Your task to perform on an android device: Open the stopwatch Image 0: 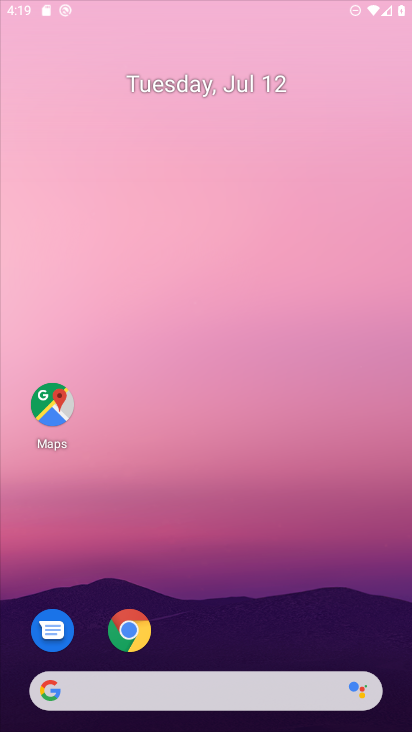
Step 0: click (294, 162)
Your task to perform on an android device: Open the stopwatch Image 1: 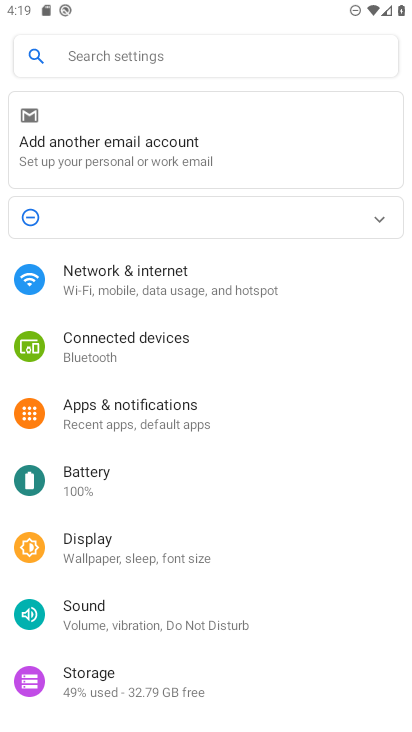
Step 1: press home button
Your task to perform on an android device: Open the stopwatch Image 2: 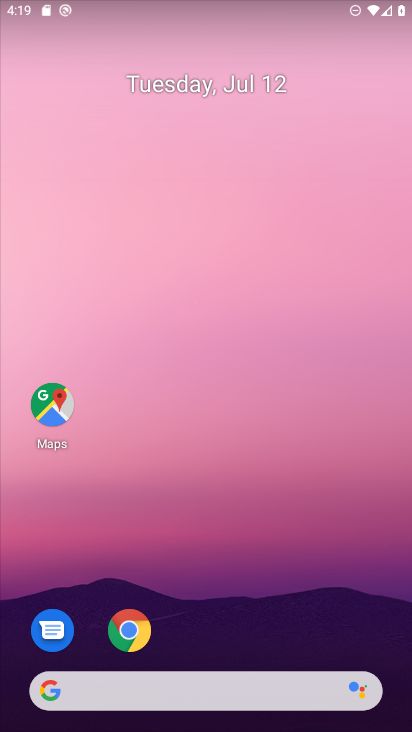
Step 2: drag from (206, 674) to (293, 154)
Your task to perform on an android device: Open the stopwatch Image 3: 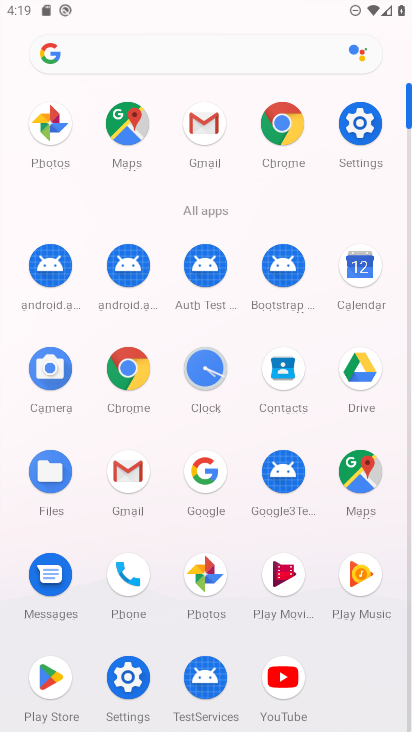
Step 3: click (202, 389)
Your task to perform on an android device: Open the stopwatch Image 4: 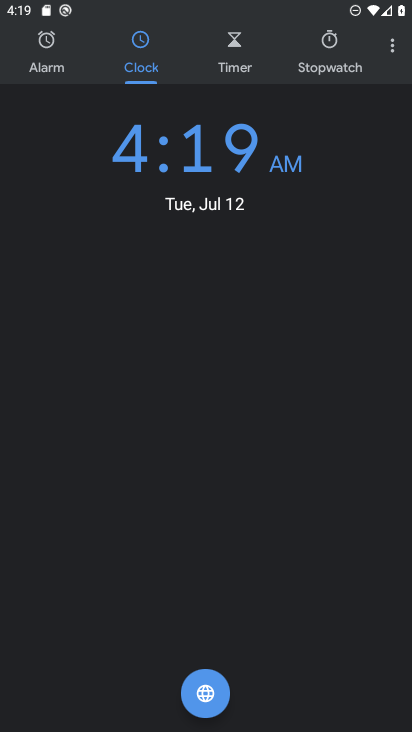
Step 4: click (319, 44)
Your task to perform on an android device: Open the stopwatch Image 5: 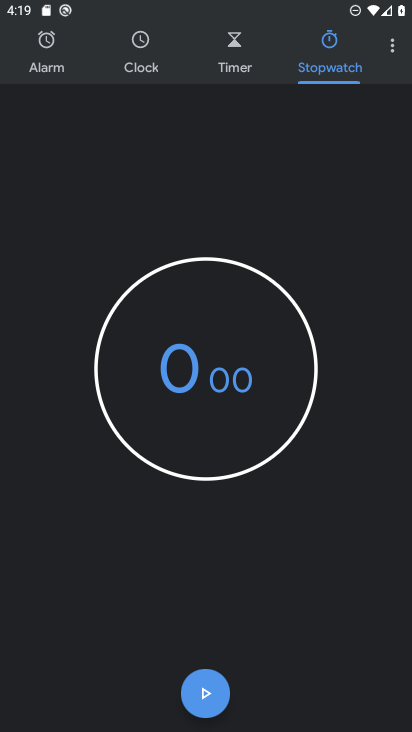
Step 5: task complete